Your task to perform on an android device: turn on improve location accuracy Image 0: 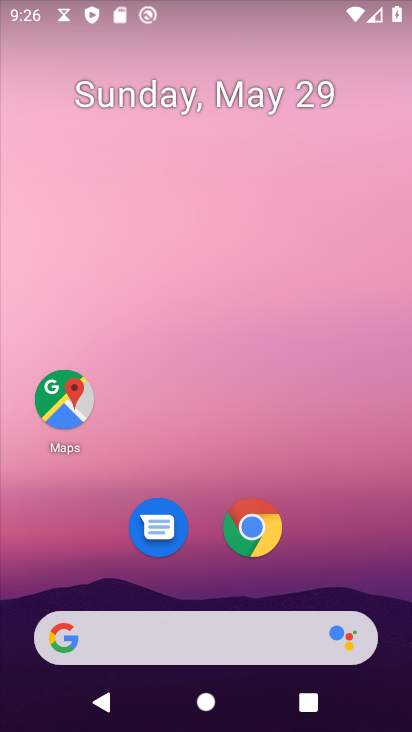
Step 0: press home button
Your task to perform on an android device: turn on improve location accuracy Image 1: 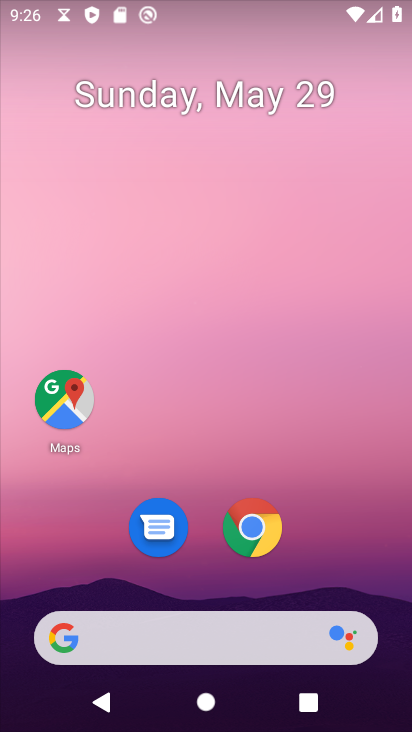
Step 1: drag from (157, 650) to (353, 64)
Your task to perform on an android device: turn on improve location accuracy Image 2: 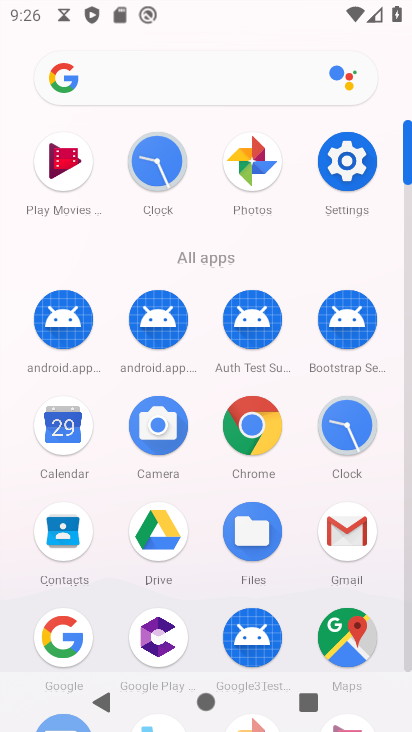
Step 2: click (359, 166)
Your task to perform on an android device: turn on improve location accuracy Image 3: 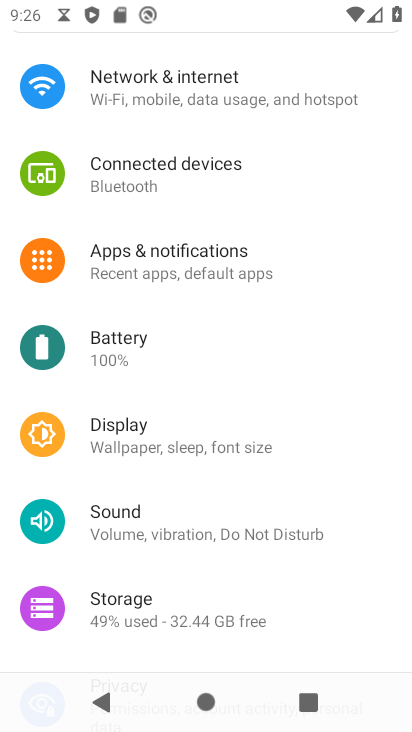
Step 3: drag from (226, 593) to (355, 122)
Your task to perform on an android device: turn on improve location accuracy Image 4: 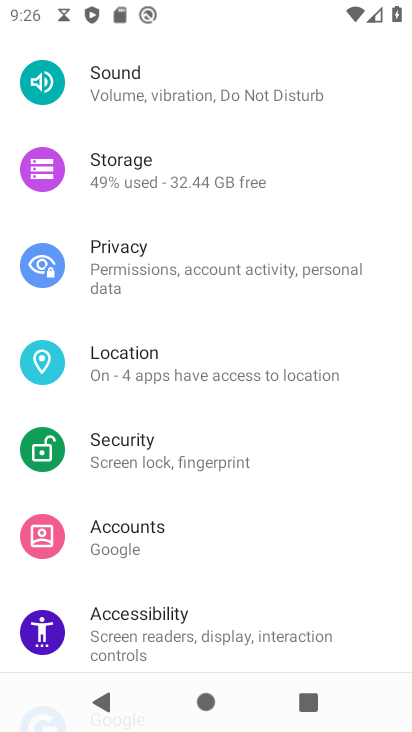
Step 4: click (152, 368)
Your task to perform on an android device: turn on improve location accuracy Image 5: 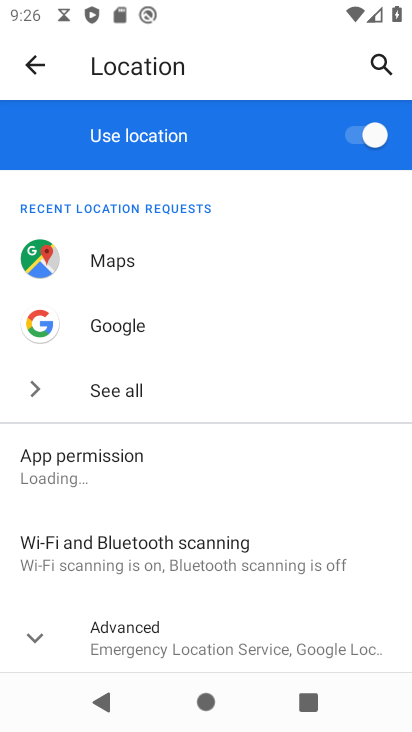
Step 5: drag from (174, 618) to (258, 313)
Your task to perform on an android device: turn on improve location accuracy Image 6: 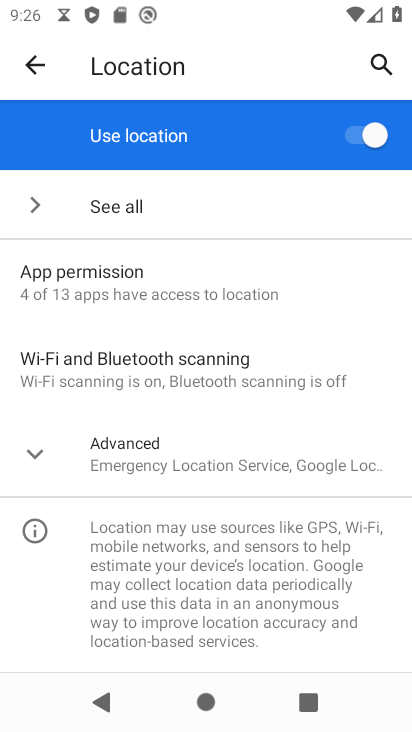
Step 6: click (188, 452)
Your task to perform on an android device: turn on improve location accuracy Image 7: 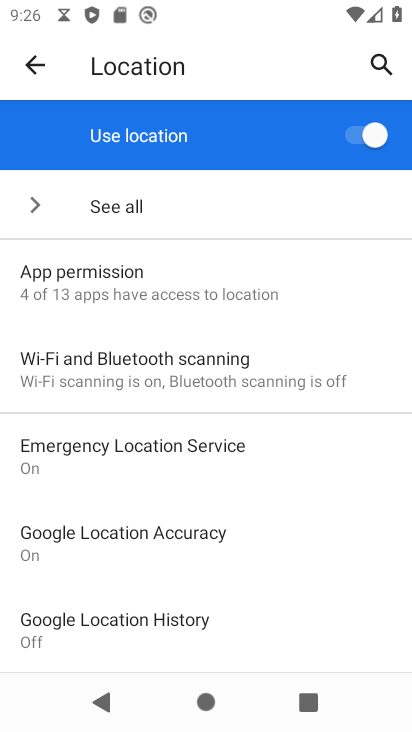
Step 7: click (133, 536)
Your task to perform on an android device: turn on improve location accuracy Image 8: 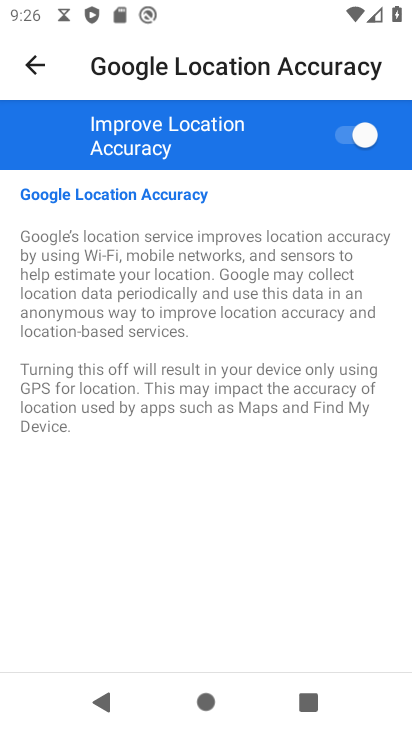
Step 8: task complete